Your task to perform on an android device: Is it going to rain this weekend? Image 0: 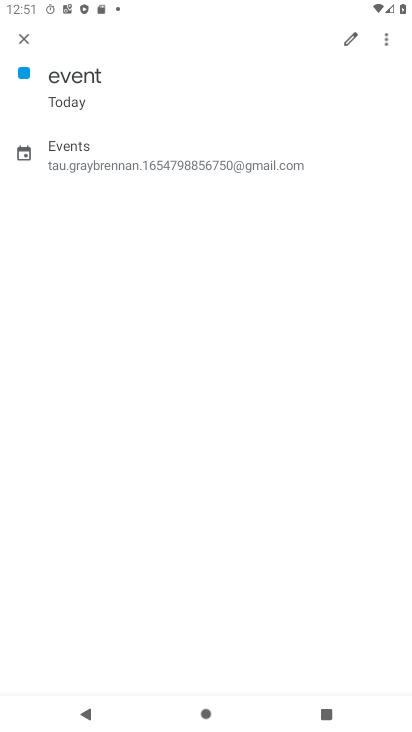
Step 0: press home button
Your task to perform on an android device: Is it going to rain this weekend? Image 1: 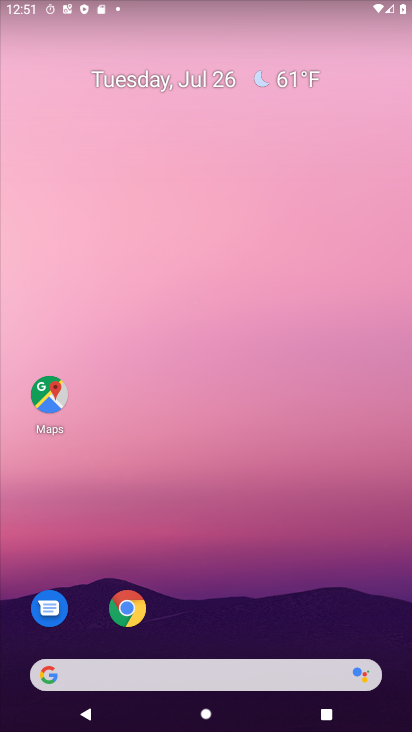
Step 1: click (213, 670)
Your task to perform on an android device: Is it going to rain this weekend? Image 2: 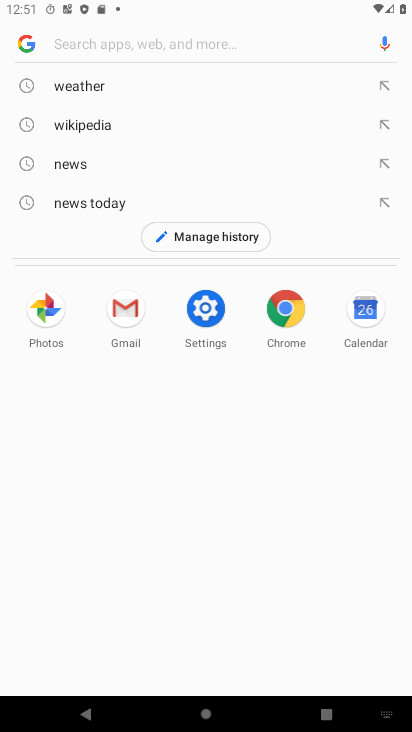
Step 2: click (106, 88)
Your task to perform on an android device: Is it going to rain this weekend? Image 3: 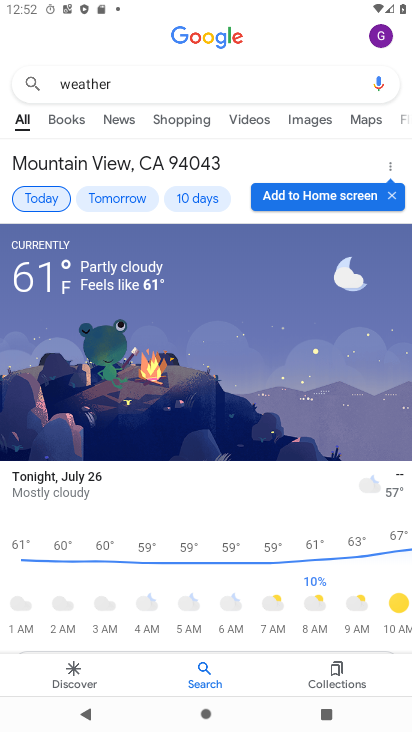
Step 3: click (196, 204)
Your task to perform on an android device: Is it going to rain this weekend? Image 4: 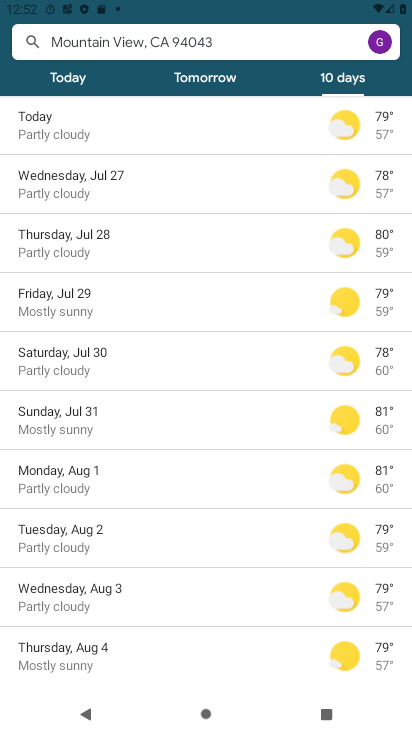
Step 4: click (162, 359)
Your task to perform on an android device: Is it going to rain this weekend? Image 5: 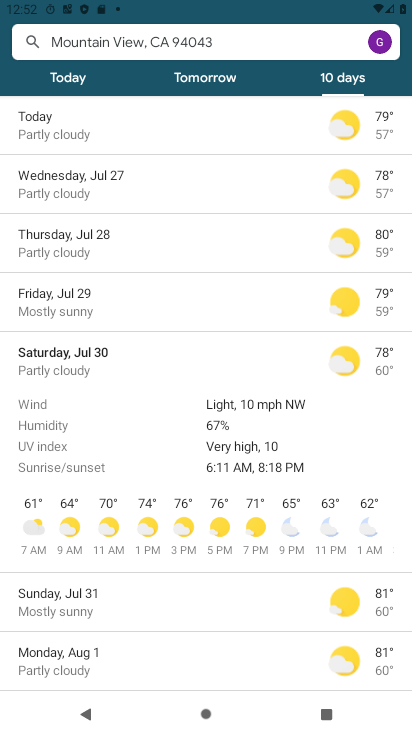
Step 5: task complete